Your task to perform on an android device: What's the weather? Image 0: 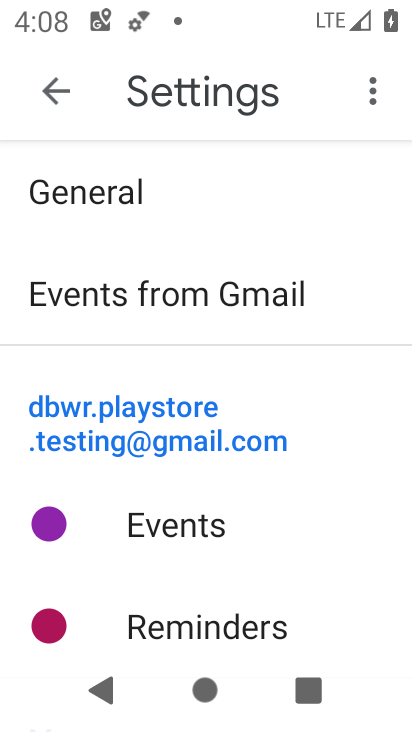
Step 0: press home button
Your task to perform on an android device: What's the weather? Image 1: 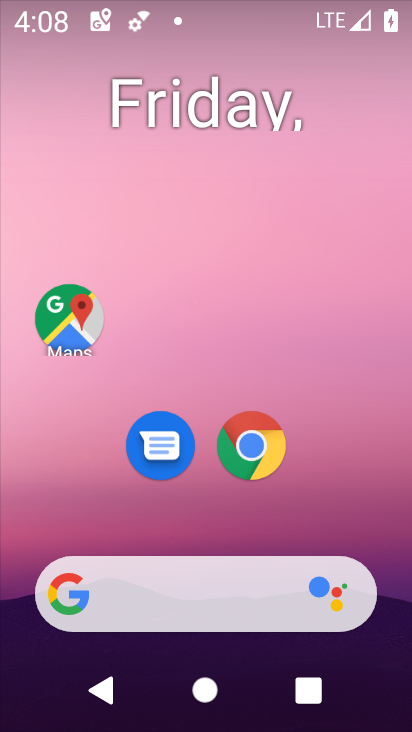
Step 1: click (230, 591)
Your task to perform on an android device: What's the weather? Image 2: 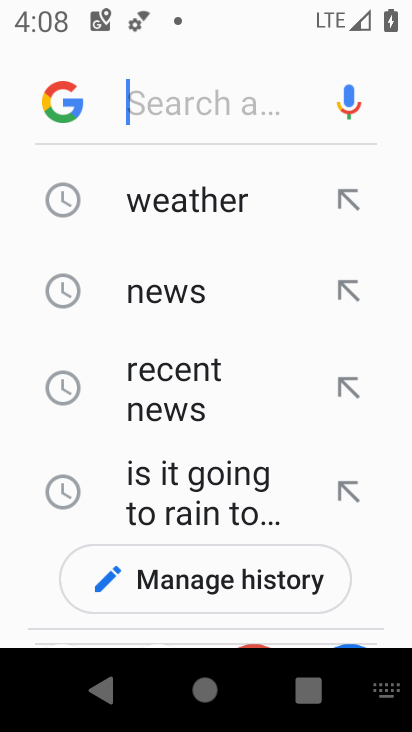
Step 2: click (220, 200)
Your task to perform on an android device: What's the weather? Image 3: 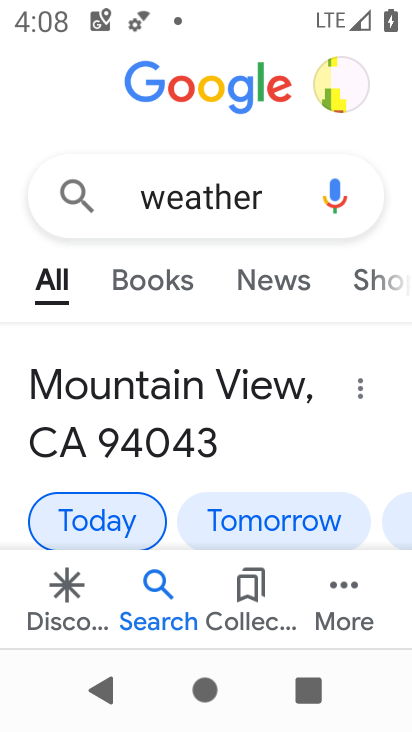
Step 3: task complete